Your task to perform on an android device: Open notification settings Image 0: 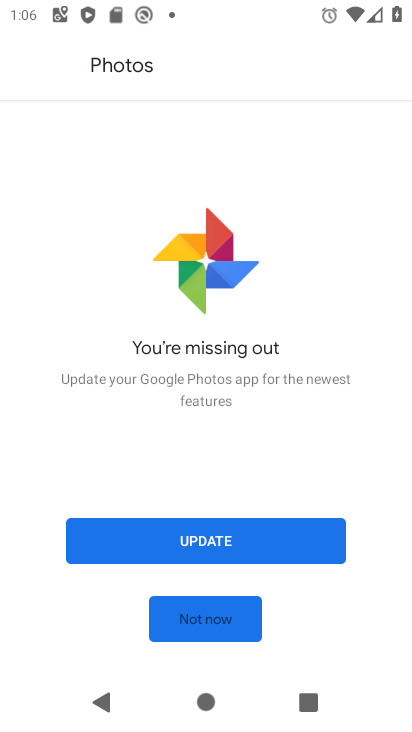
Step 0: press home button
Your task to perform on an android device: Open notification settings Image 1: 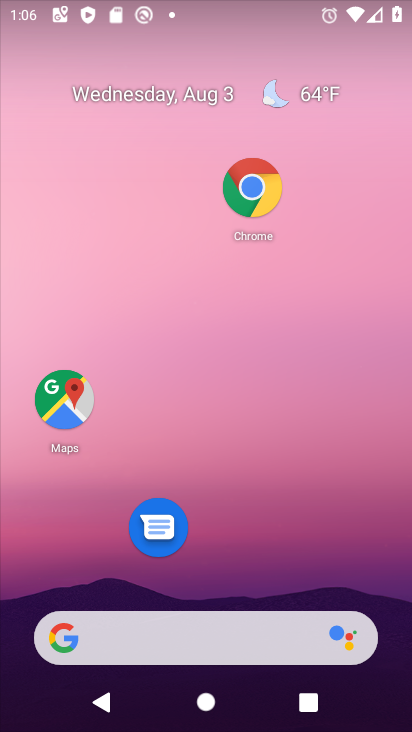
Step 1: drag from (274, 589) to (288, 29)
Your task to perform on an android device: Open notification settings Image 2: 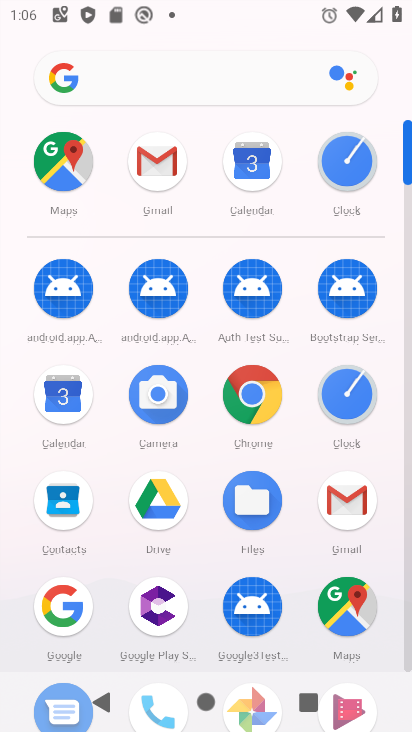
Step 2: drag from (223, 560) to (240, 156)
Your task to perform on an android device: Open notification settings Image 3: 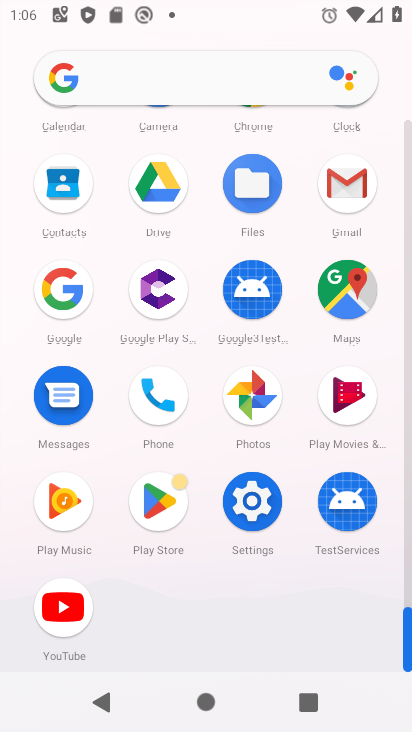
Step 3: click (250, 518)
Your task to perform on an android device: Open notification settings Image 4: 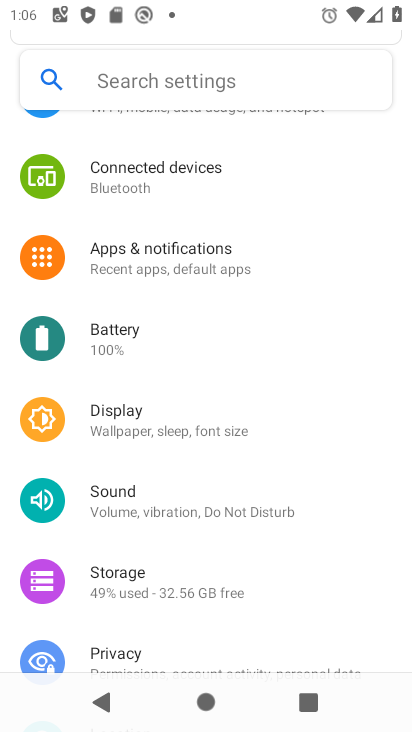
Step 4: click (231, 257)
Your task to perform on an android device: Open notification settings Image 5: 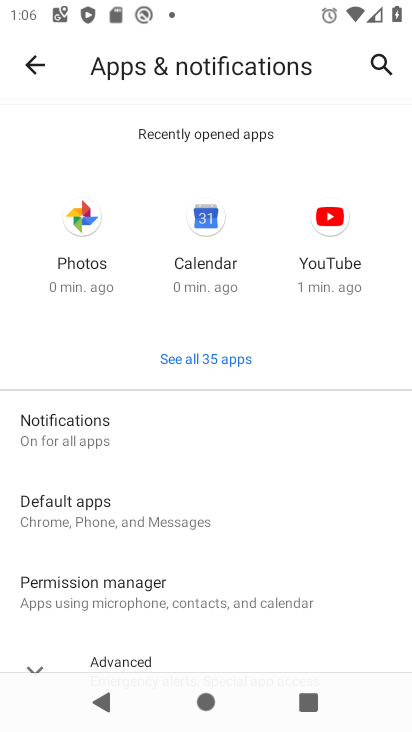
Step 5: click (116, 437)
Your task to perform on an android device: Open notification settings Image 6: 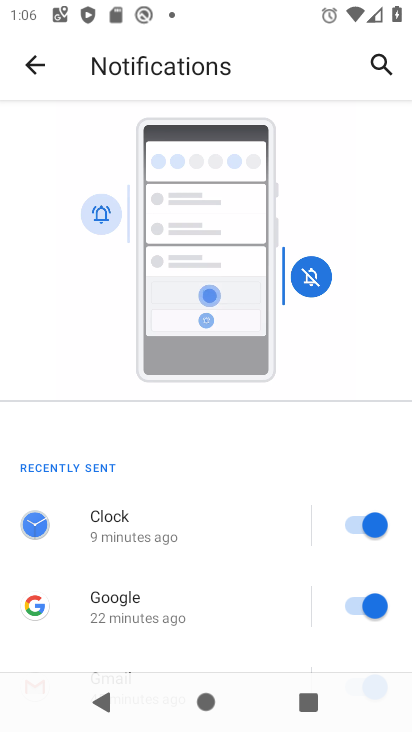
Step 6: task complete